Your task to perform on an android device: turn off data saver in the chrome app Image 0: 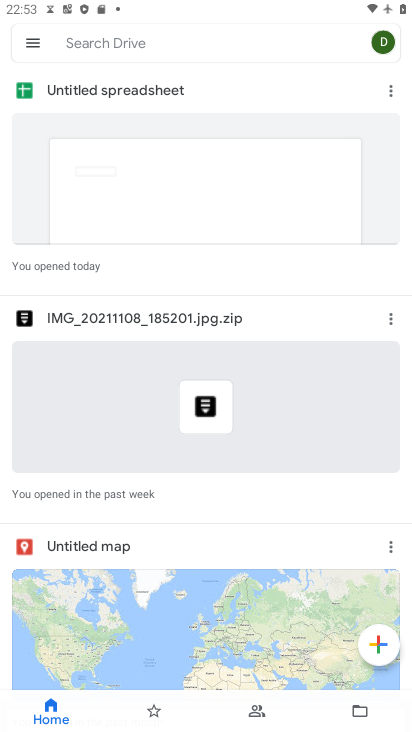
Step 0: press home button
Your task to perform on an android device: turn off data saver in the chrome app Image 1: 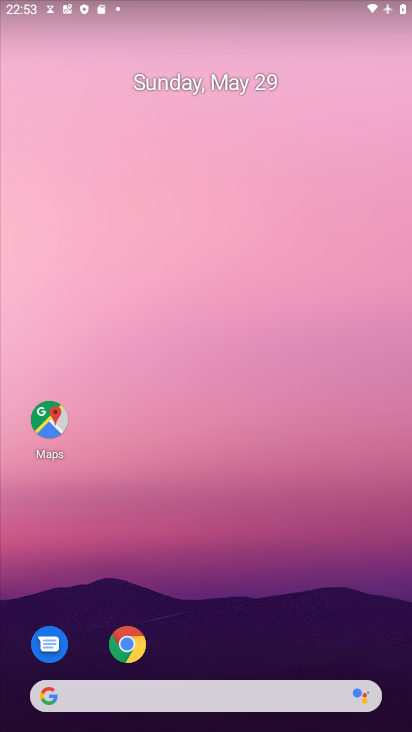
Step 1: drag from (242, 618) to (228, 260)
Your task to perform on an android device: turn off data saver in the chrome app Image 2: 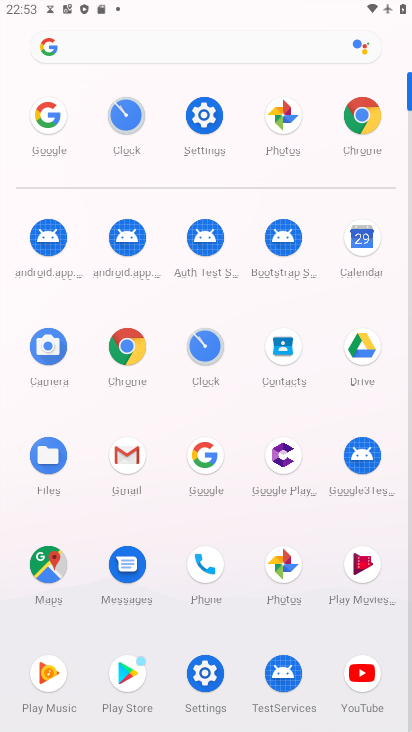
Step 2: click (123, 345)
Your task to perform on an android device: turn off data saver in the chrome app Image 3: 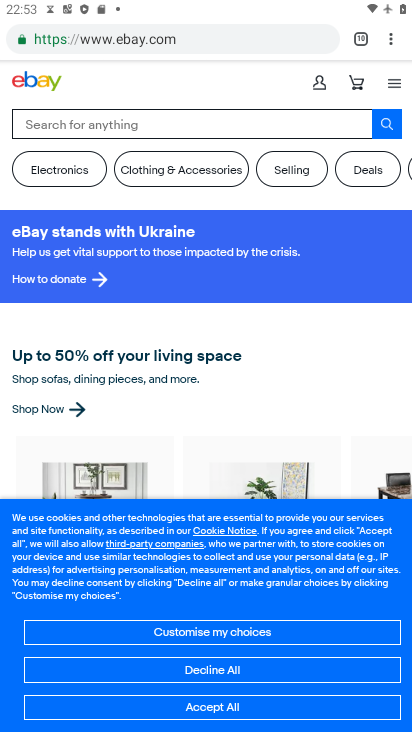
Step 3: click (392, 29)
Your task to perform on an android device: turn off data saver in the chrome app Image 4: 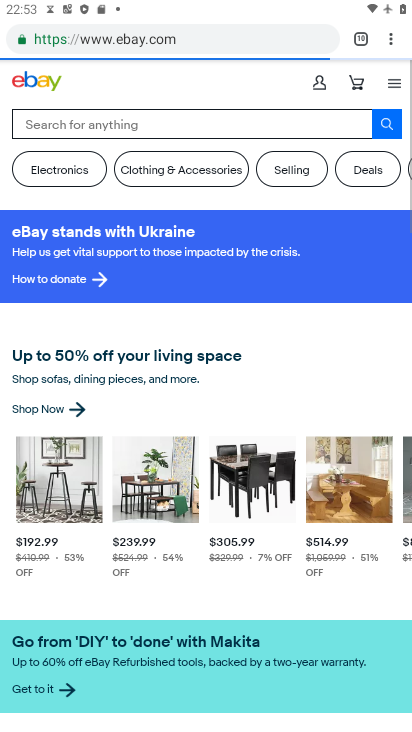
Step 4: click (378, 33)
Your task to perform on an android device: turn off data saver in the chrome app Image 5: 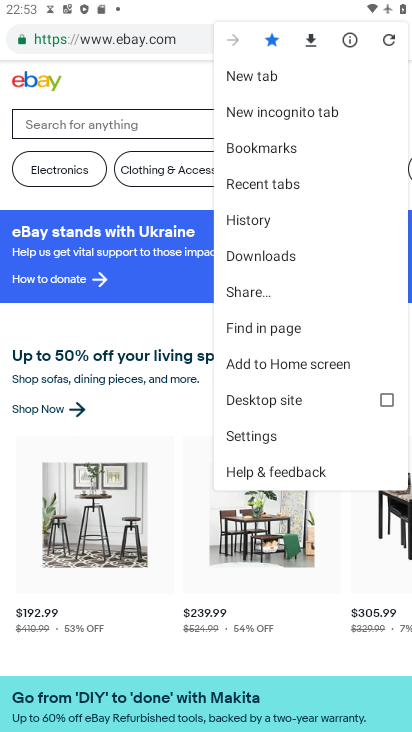
Step 5: click (288, 432)
Your task to perform on an android device: turn off data saver in the chrome app Image 6: 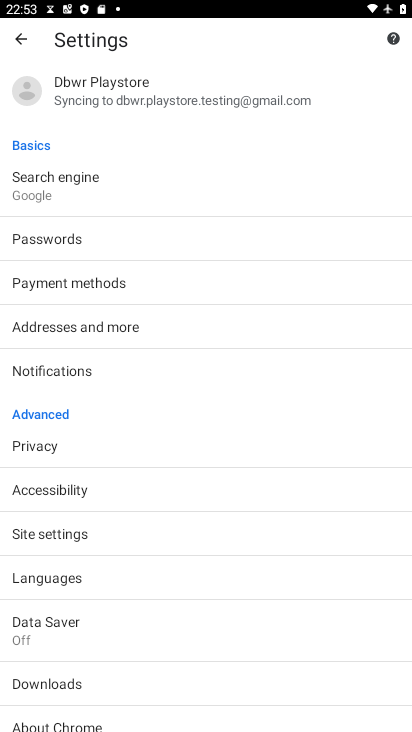
Step 6: drag from (165, 639) to (171, 497)
Your task to perform on an android device: turn off data saver in the chrome app Image 7: 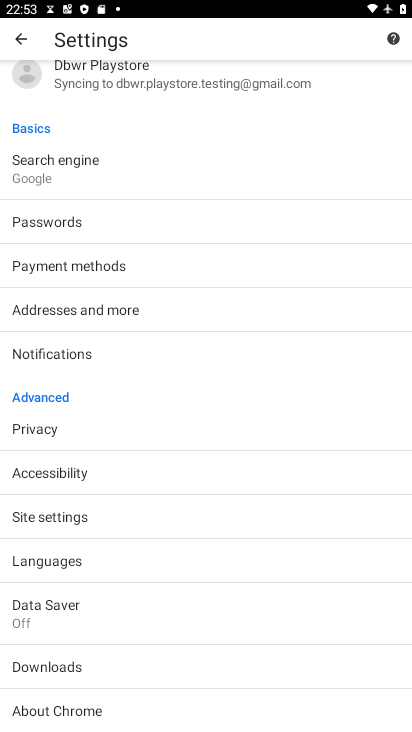
Step 7: click (143, 593)
Your task to perform on an android device: turn off data saver in the chrome app Image 8: 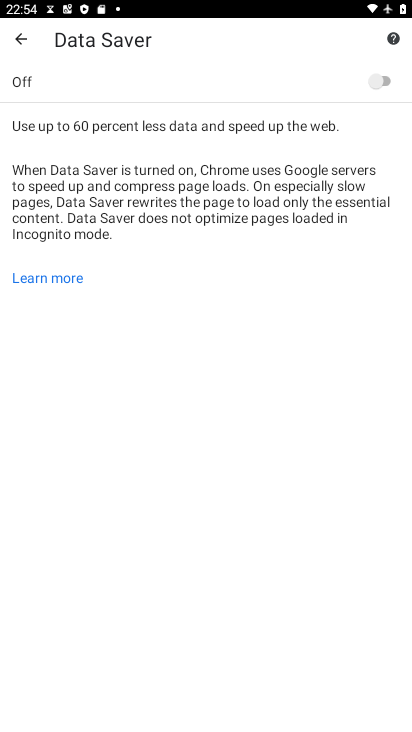
Step 8: task complete